Your task to perform on an android device: turn off picture-in-picture Image 0: 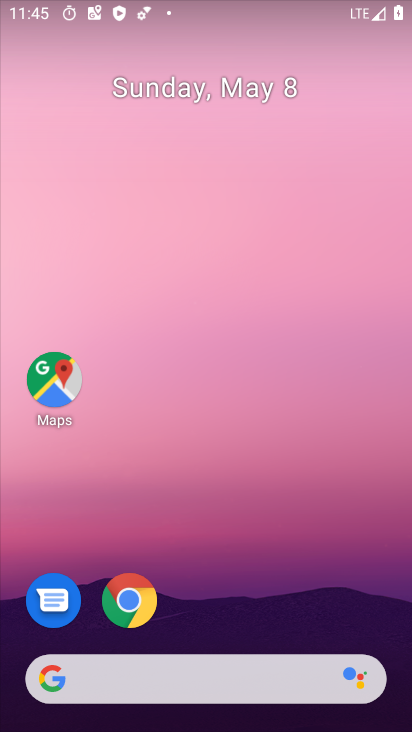
Step 0: drag from (188, 623) to (182, 207)
Your task to perform on an android device: turn off picture-in-picture Image 1: 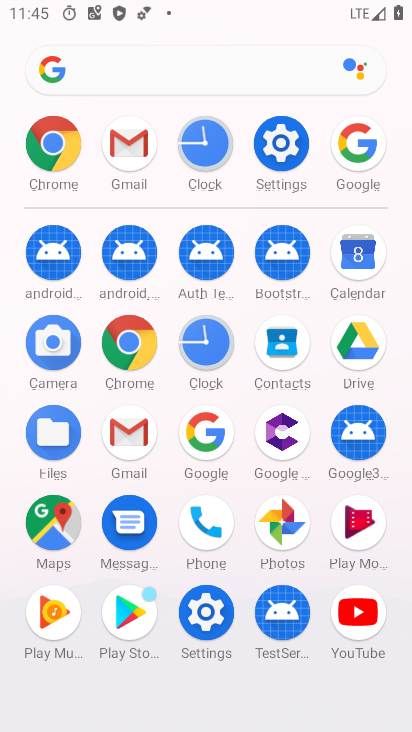
Step 1: click (273, 166)
Your task to perform on an android device: turn off picture-in-picture Image 2: 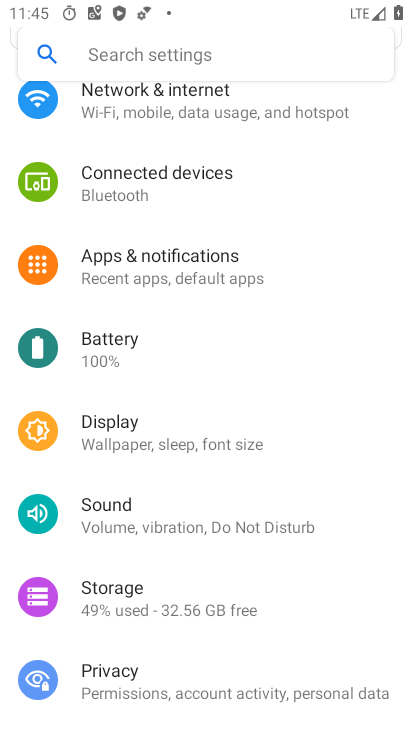
Step 2: drag from (144, 563) to (190, 284)
Your task to perform on an android device: turn off picture-in-picture Image 3: 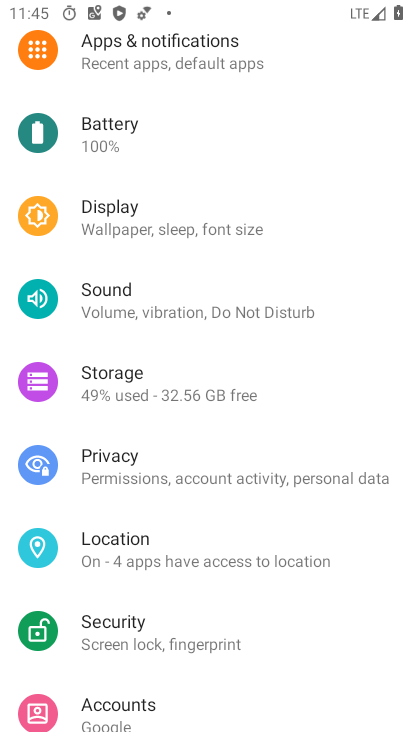
Step 3: drag from (198, 560) to (220, 343)
Your task to perform on an android device: turn off picture-in-picture Image 4: 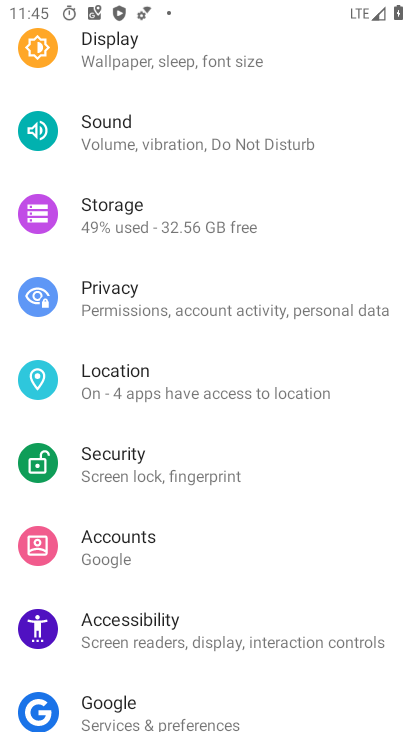
Step 4: drag from (185, 610) to (230, 370)
Your task to perform on an android device: turn off picture-in-picture Image 5: 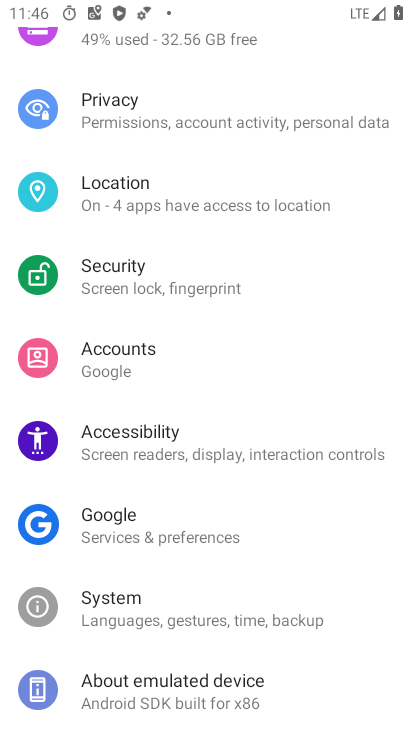
Step 5: drag from (251, 229) to (228, 643)
Your task to perform on an android device: turn off picture-in-picture Image 6: 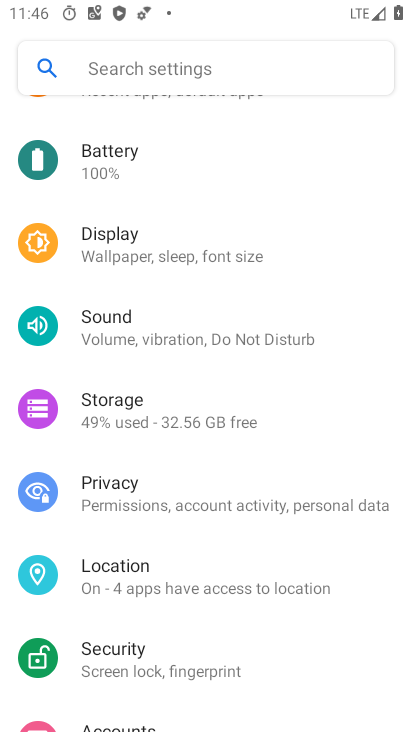
Step 6: drag from (202, 298) to (209, 587)
Your task to perform on an android device: turn off picture-in-picture Image 7: 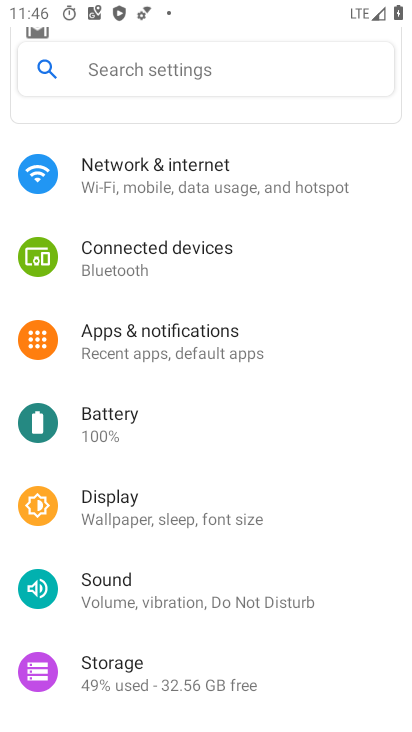
Step 7: drag from (155, 322) to (176, 255)
Your task to perform on an android device: turn off picture-in-picture Image 8: 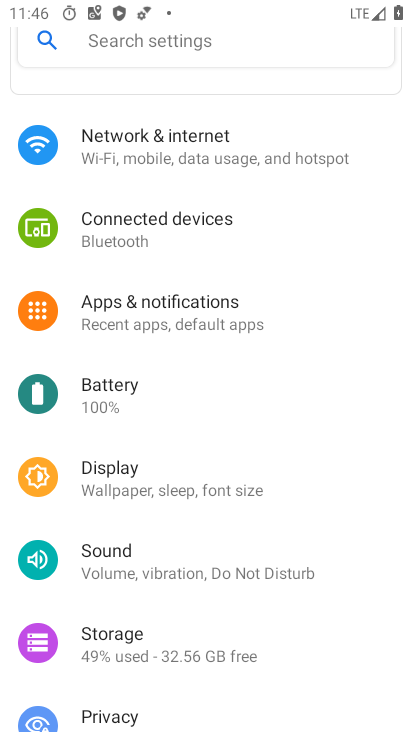
Step 8: drag from (164, 587) to (231, 268)
Your task to perform on an android device: turn off picture-in-picture Image 9: 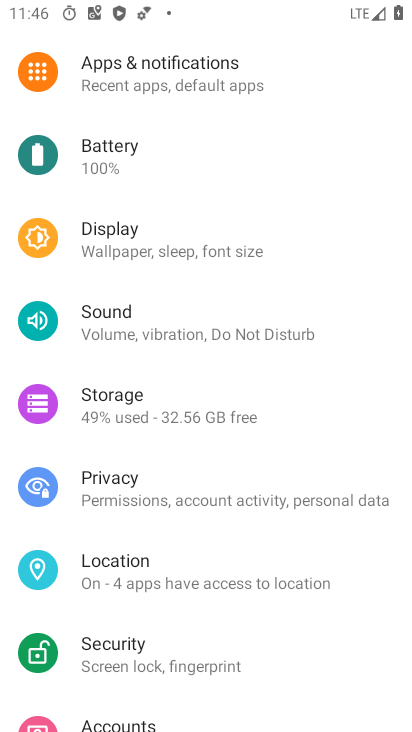
Step 9: drag from (280, 247) to (258, 465)
Your task to perform on an android device: turn off picture-in-picture Image 10: 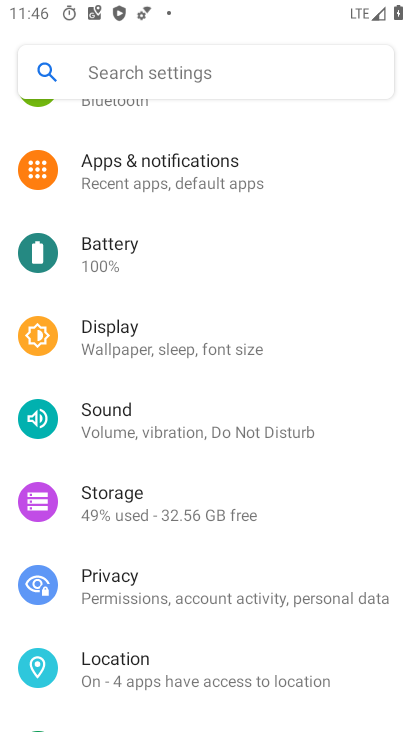
Step 10: click (154, 178)
Your task to perform on an android device: turn off picture-in-picture Image 11: 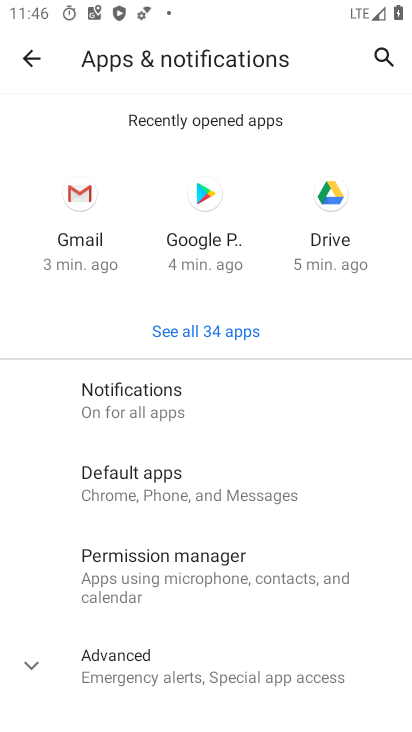
Step 11: drag from (176, 529) to (228, 312)
Your task to perform on an android device: turn off picture-in-picture Image 12: 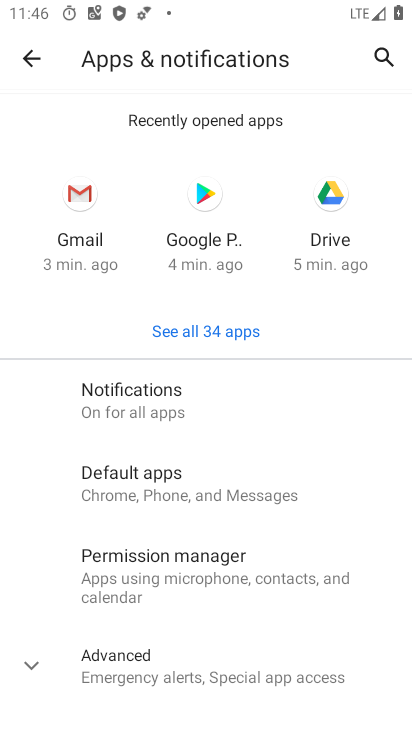
Step 12: click (215, 401)
Your task to perform on an android device: turn off picture-in-picture Image 13: 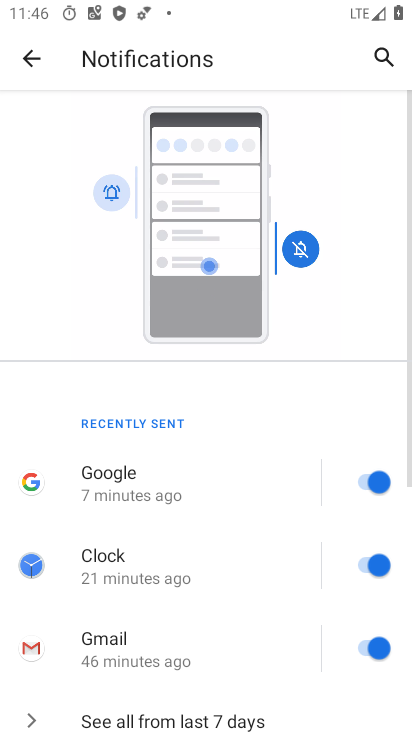
Step 13: drag from (248, 539) to (281, 187)
Your task to perform on an android device: turn off picture-in-picture Image 14: 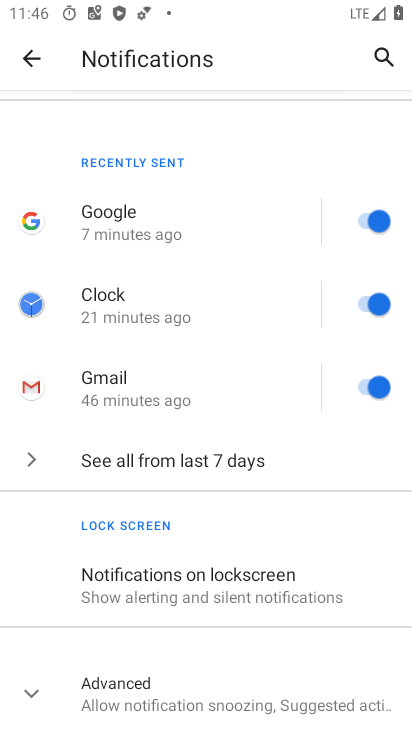
Step 14: drag from (214, 593) to (315, 131)
Your task to perform on an android device: turn off picture-in-picture Image 15: 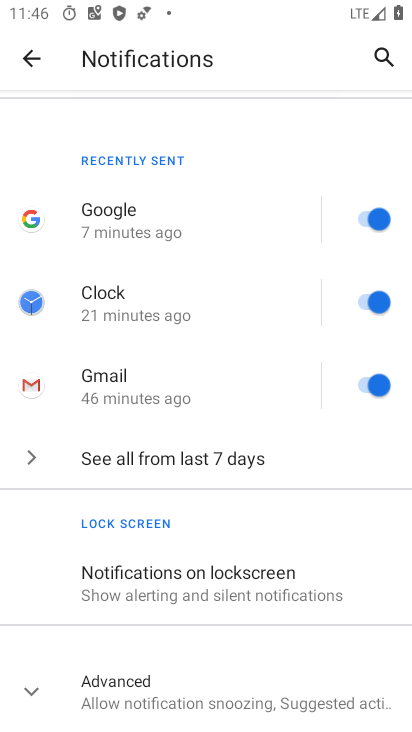
Step 15: click (145, 680)
Your task to perform on an android device: turn off picture-in-picture Image 16: 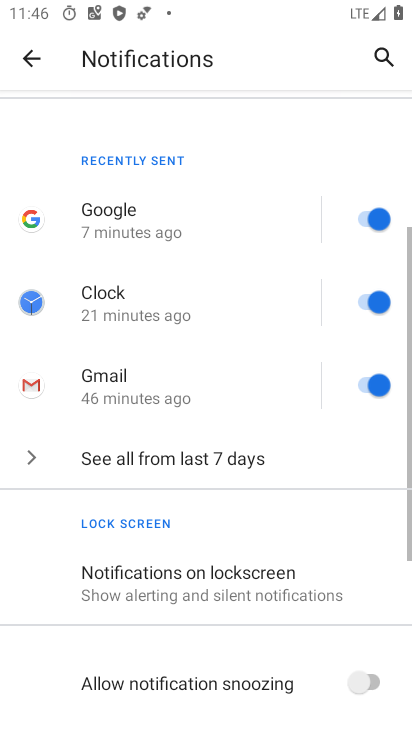
Step 16: drag from (143, 671) to (161, 313)
Your task to perform on an android device: turn off picture-in-picture Image 17: 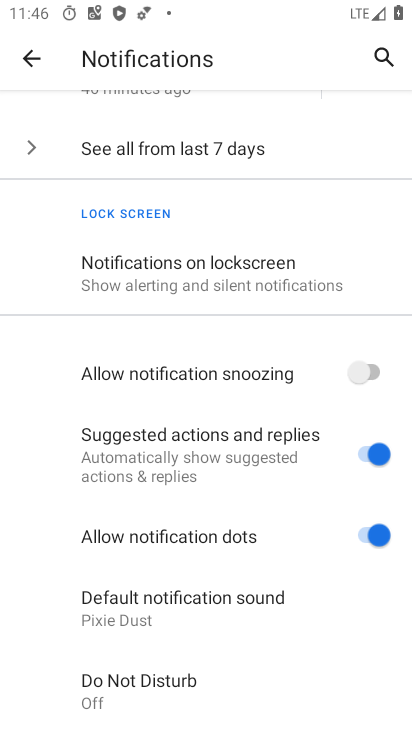
Step 17: drag from (151, 260) to (167, 486)
Your task to perform on an android device: turn off picture-in-picture Image 18: 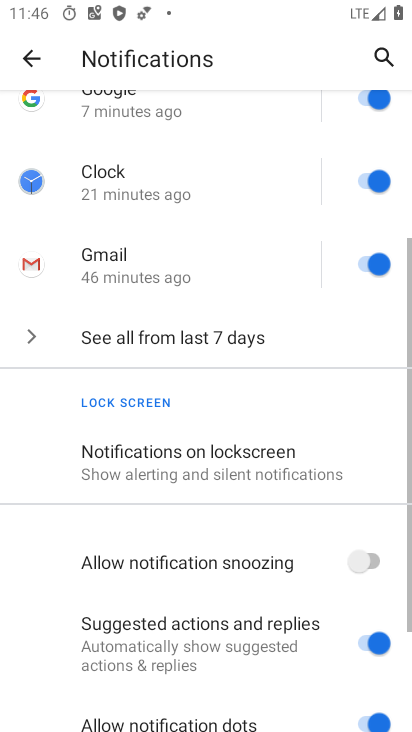
Step 18: drag from (164, 171) to (166, 531)
Your task to perform on an android device: turn off picture-in-picture Image 19: 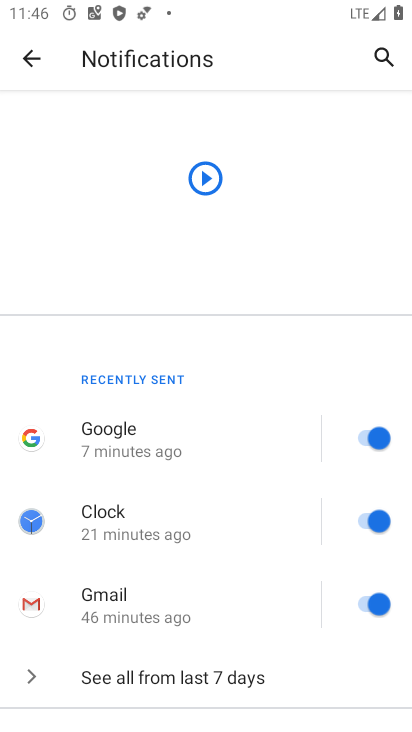
Step 19: drag from (146, 278) to (168, 572)
Your task to perform on an android device: turn off picture-in-picture Image 20: 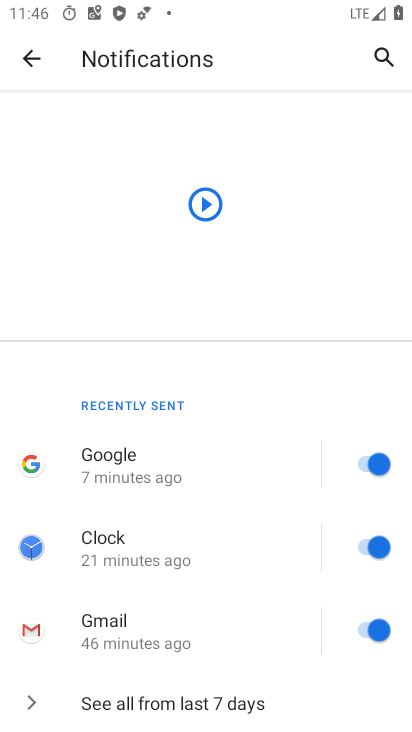
Step 20: click (27, 66)
Your task to perform on an android device: turn off picture-in-picture Image 21: 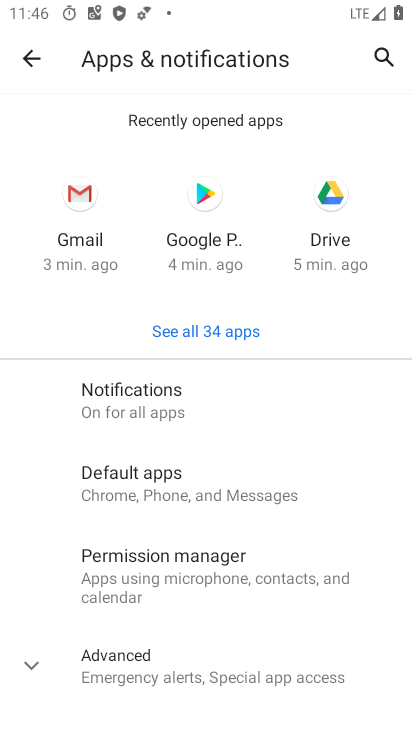
Step 21: click (187, 658)
Your task to perform on an android device: turn off picture-in-picture Image 22: 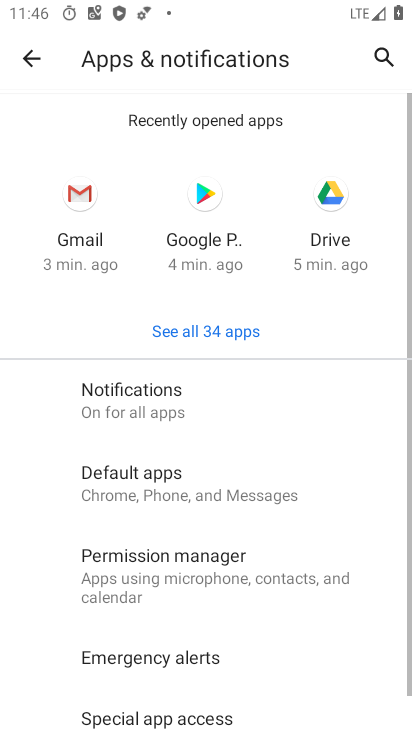
Step 22: drag from (184, 613) to (196, 270)
Your task to perform on an android device: turn off picture-in-picture Image 23: 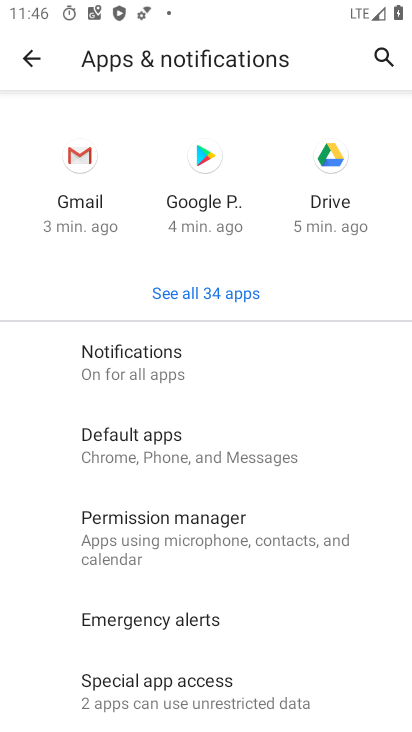
Step 23: click (156, 703)
Your task to perform on an android device: turn off picture-in-picture Image 24: 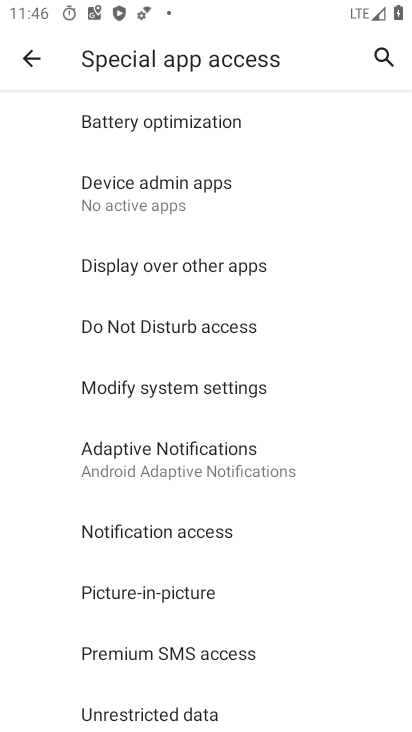
Step 24: drag from (224, 489) to (248, 253)
Your task to perform on an android device: turn off picture-in-picture Image 25: 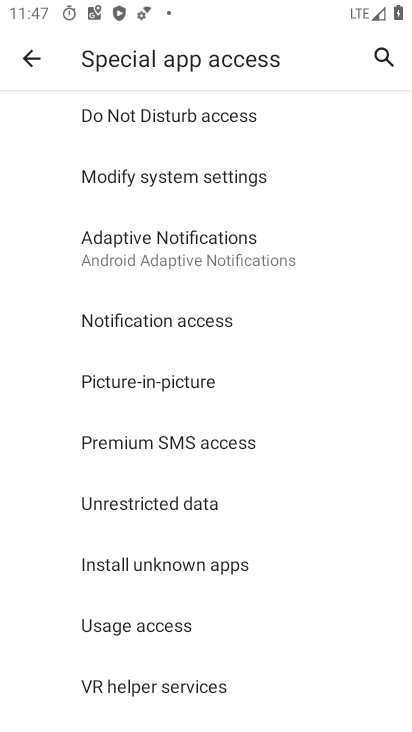
Step 25: click (209, 397)
Your task to perform on an android device: turn off picture-in-picture Image 26: 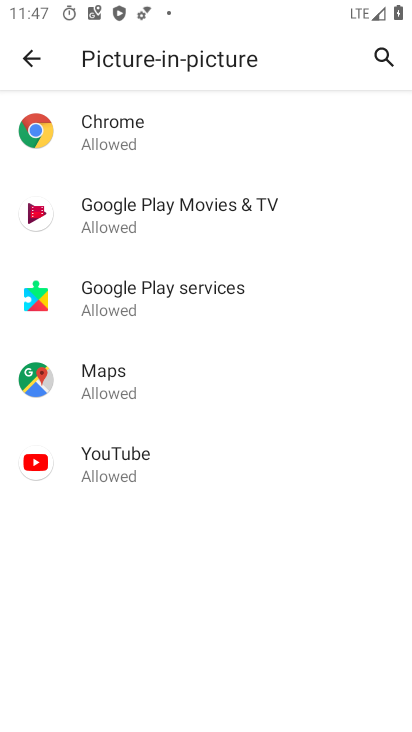
Step 26: click (223, 153)
Your task to perform on an android device: turn off picture-in-picture Image 27: 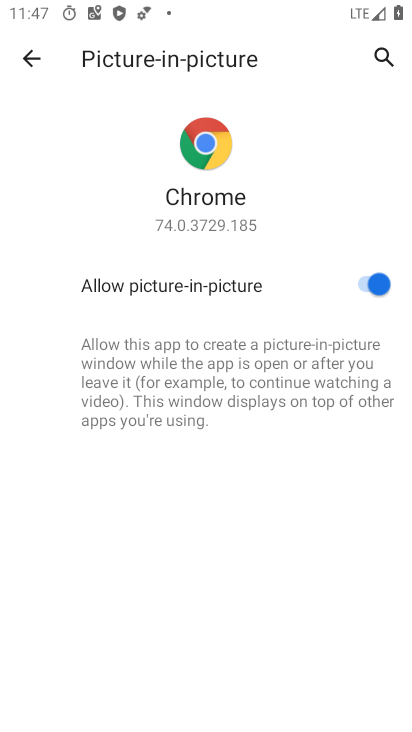
Step 27: click (363, 287)
Your task to perform on an android device: turn off picture-in-picture Image 28: 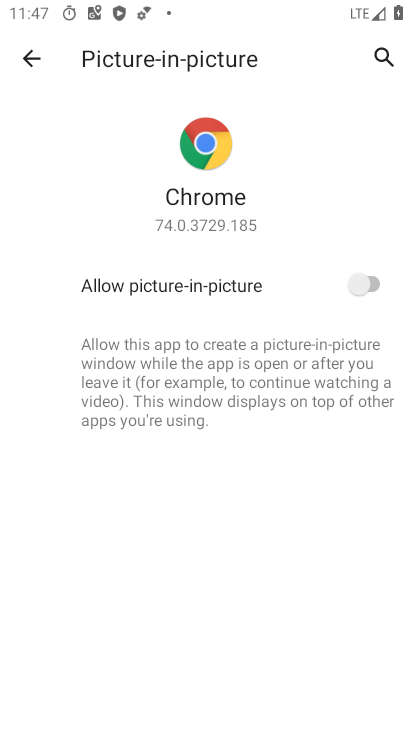
Step 28: task complete